Your task to perform on an android device: change notifications settings Image 0: 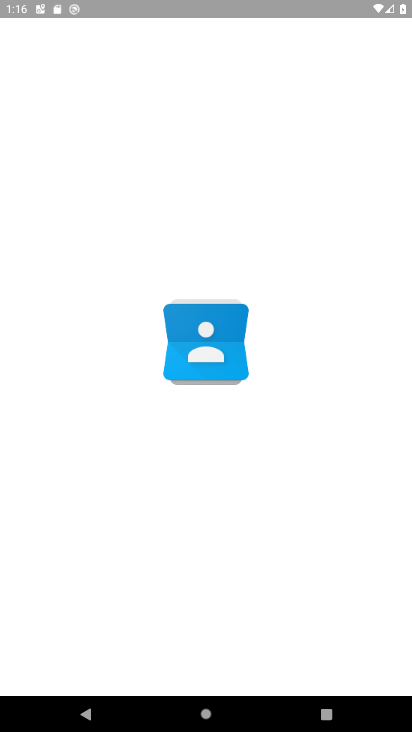
Step 0: click (185, 667)
Your task to perform on an android device: change notifications settings Image 1: 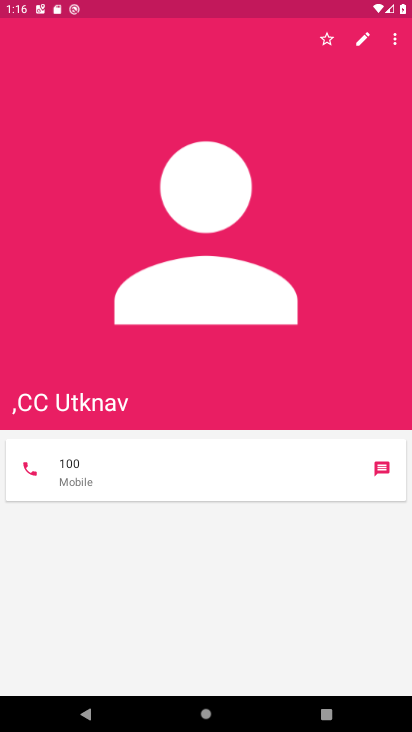
Step 1: press home button
Your task to perform on an android device: change notifications settings Image 2: 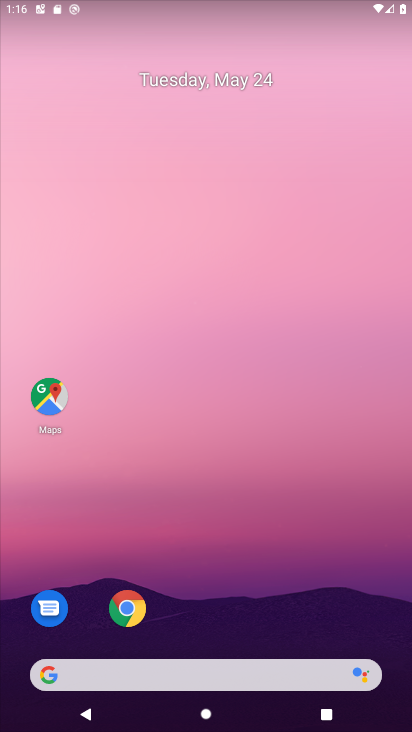
Step 2: drag from (237, 602) to (208, 135)
Your task to perform on an android device: change notifications settings Image 3: 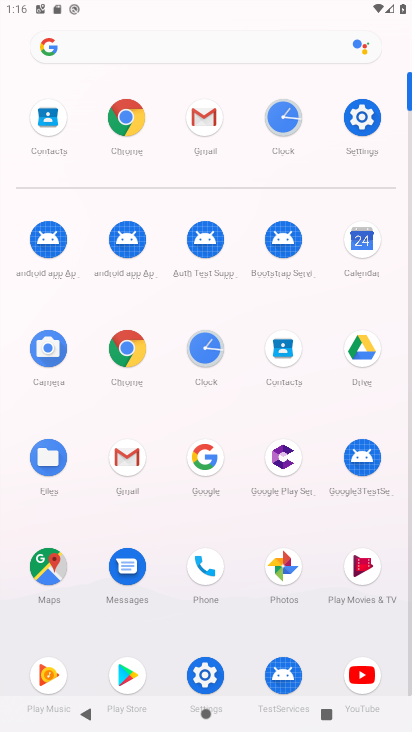
Step 3: click (365, 158)
Your task to perform on an android device: change notifications settings Image 4: 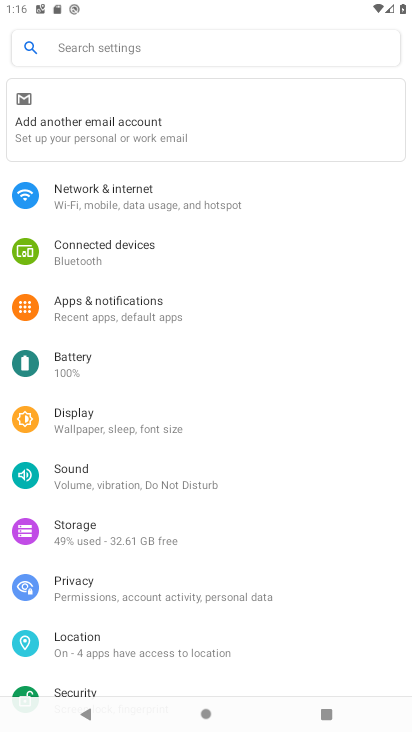
Step 4: drag from (150, 589) to (188, 350)
Your task to perform on an android device: change notifications settings Image 5: 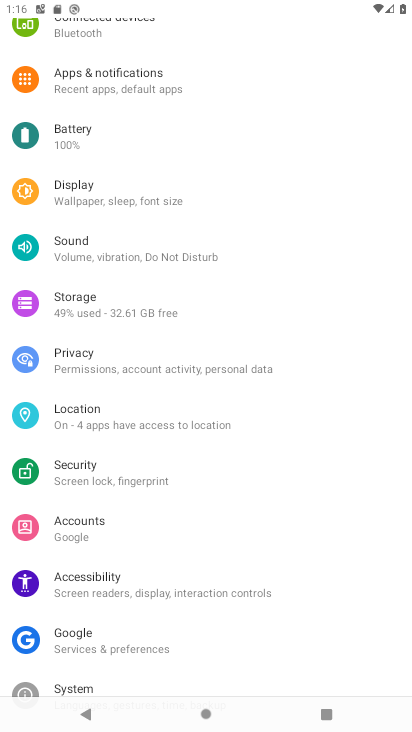
Step 5: click (182, 82)
Your task to perform on an android device: change notifications settings Image 6: 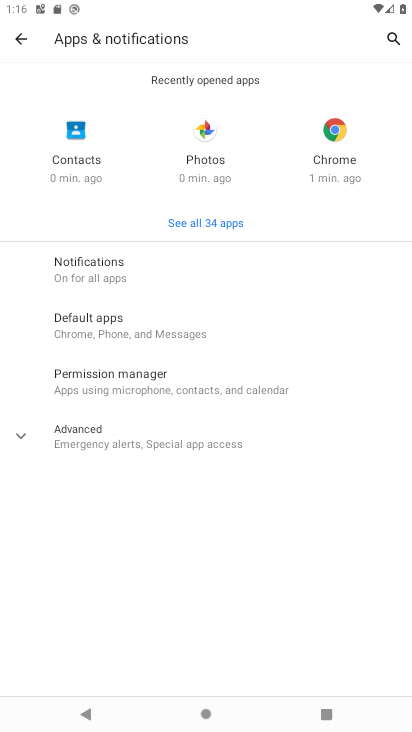
Step 6: click (146, 428)
Your task to perform on an android device: change notifications settings Image 7: 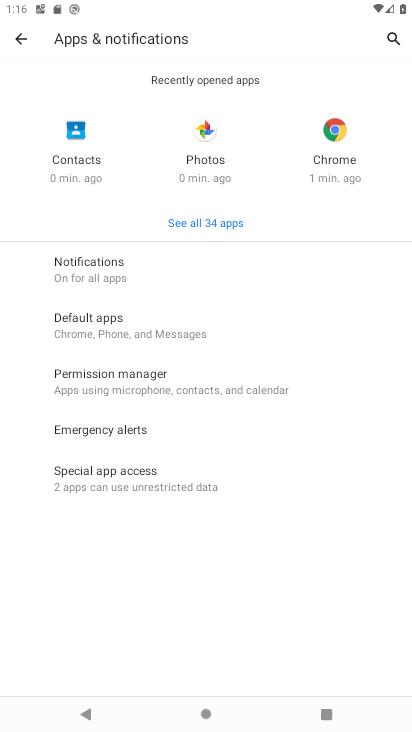
Step 7: click (118, 285)
Your task to perform on an android device: change notifications settings Image 8: 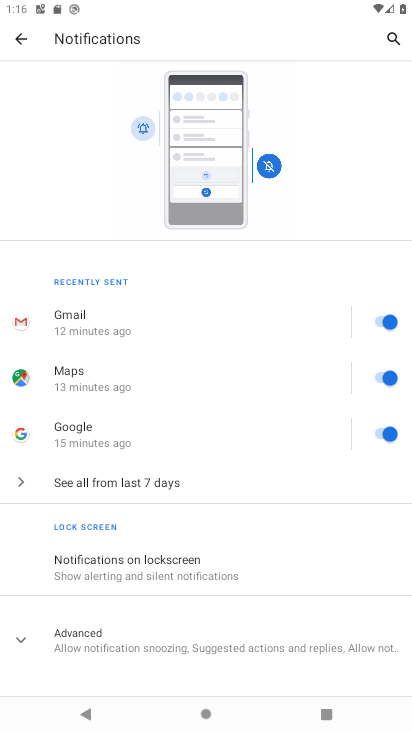
Step 8: click (123, 623)
Your task to perform on an android device: change notifications settings Image 9: 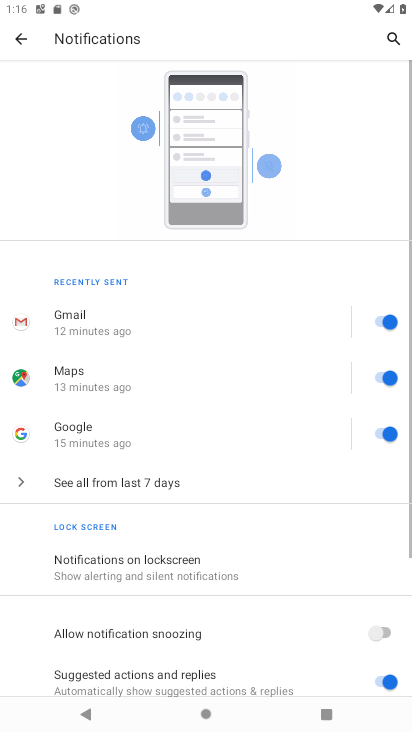
Step 9: task complete